Your task to perform on an android device: turn on data saver in the chrome app Image 0: 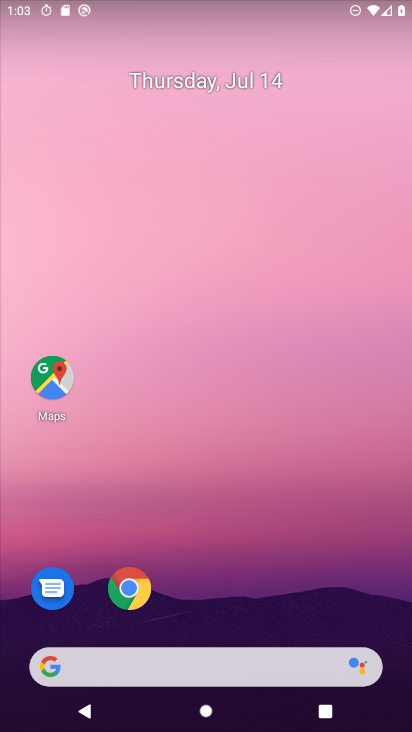
Step 0: click (137, 593)
Your task to perform on an android device: turn on data saver in the chrome app Image 1: 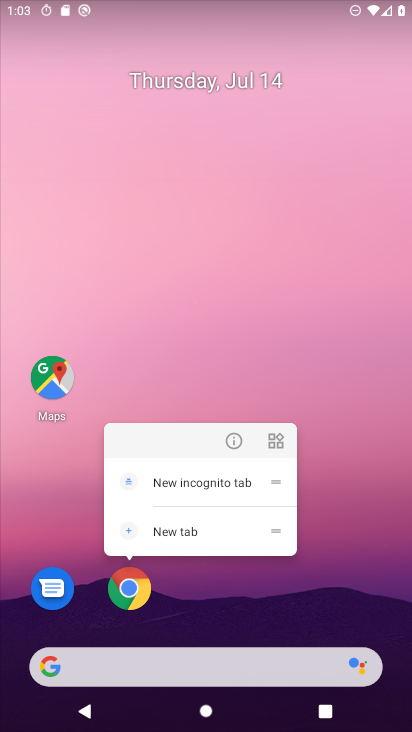
Step 1: click (129, 593)
Your task to perform on an android device: turn on data saver in the chrome app Image 2: 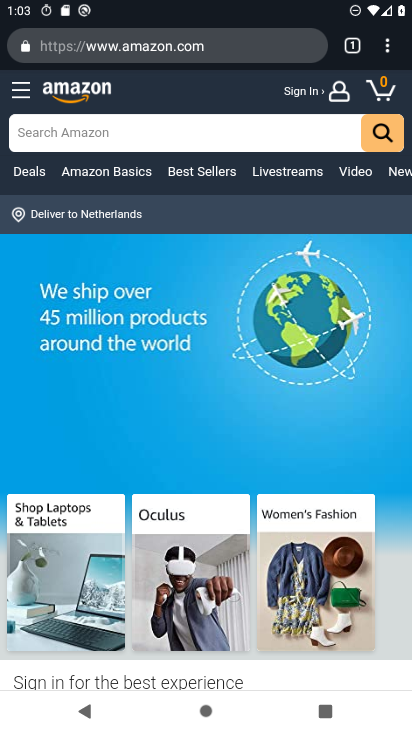
Step 2: drag from (386, 43) to (268, 604)
Your task to perform on an android device: turn on data saver in the chrome app Image 3: 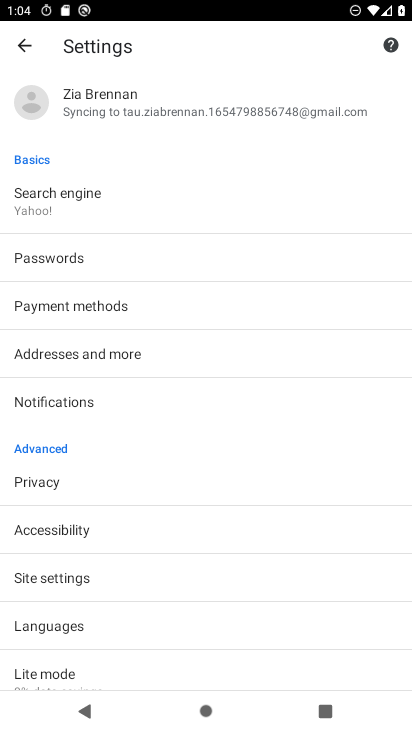
Step 3: drag from (171, 599) to (280, 304)
Your task to perform on an android device: turn on data saver in the chrome app Image 4: 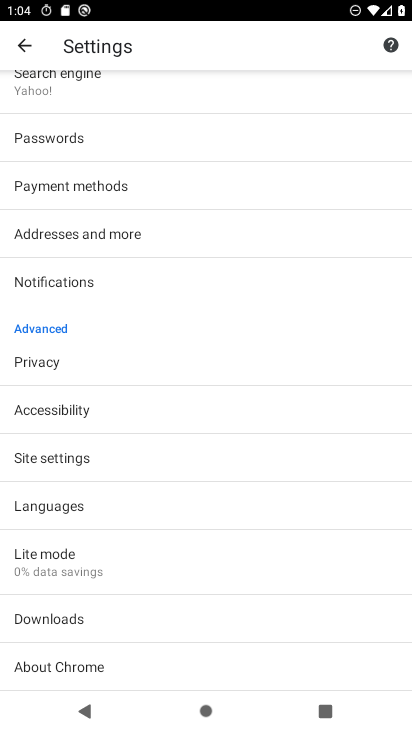
Step 4: click (73, 556)
Your task to perform on an android device: turn on data saver in the chrome app Image 5: 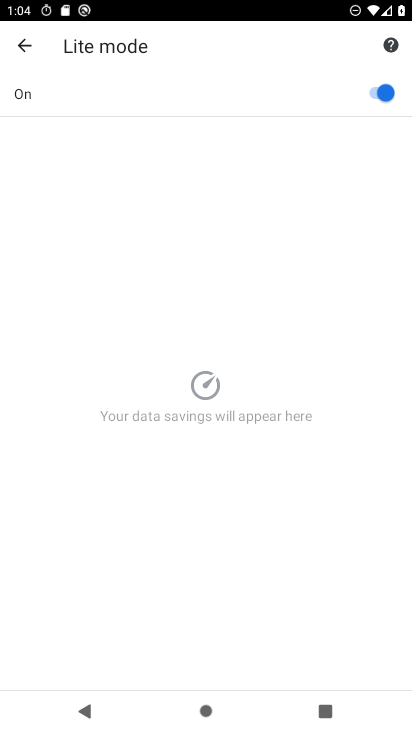
Step 5: task complete